Your task to perform on an android device: Open Google Maps Image 0: 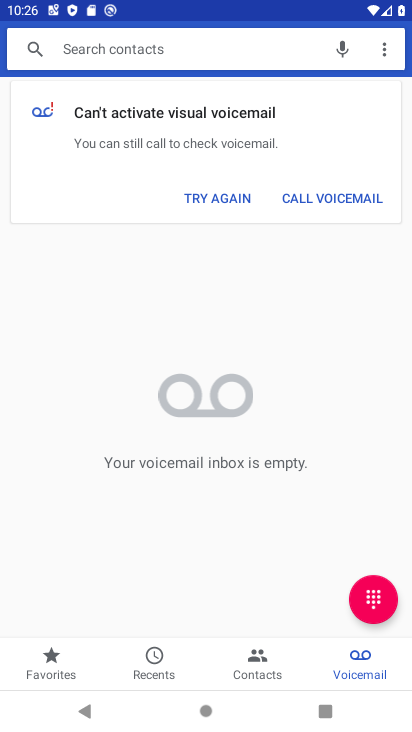
Step 0: press home button
Your task to perform on an android device: Open Google Maps Image 1: 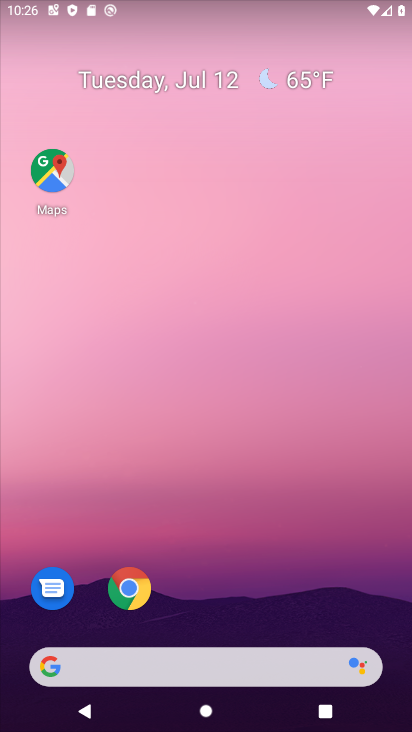
Step 1: click (46, 190)
Your task to perform on an android device: Open Google Maps Image 2: 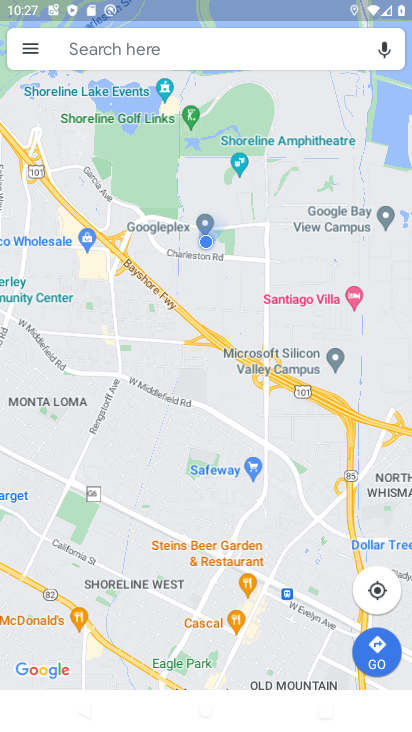
Step 2: task complete